Your task to perform on an android device: Go to sound settings Image 0: 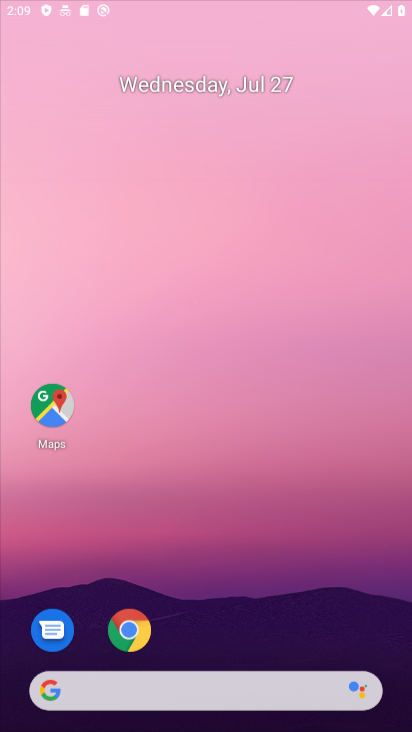
Step 0: drag from (197, 540) to (152, 176)
Your task to perform on an android device: Go to sound settings Image 1: 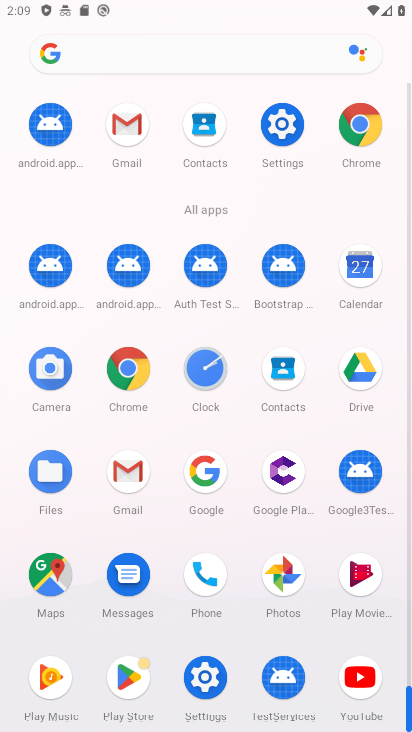
Step 1: click (278, 124)
Your task to perform on an android device: Go to sound settings Image 2: 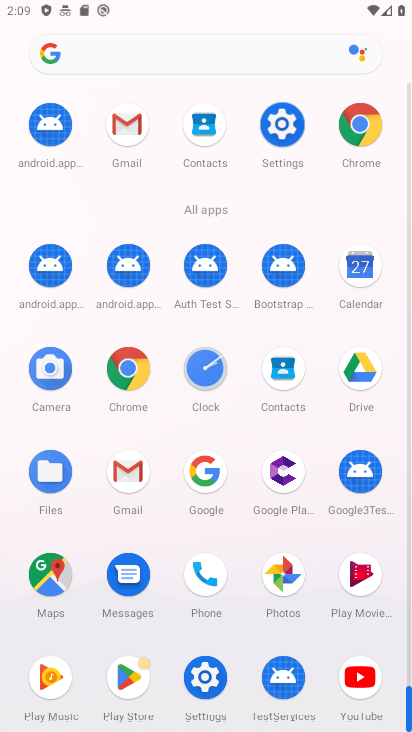
Step 2: click (284, 126)
Your task to perform on an android device: Go to sound settings Image 3: 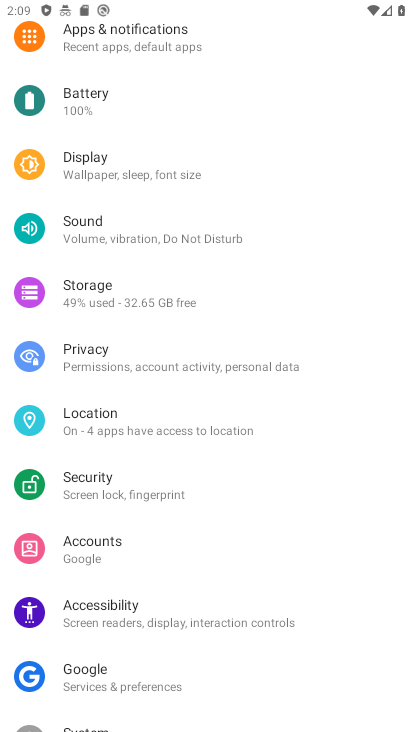
Step 3: click (79, 235)
Your task to perform on an android device: Go to sound settings Image 4: 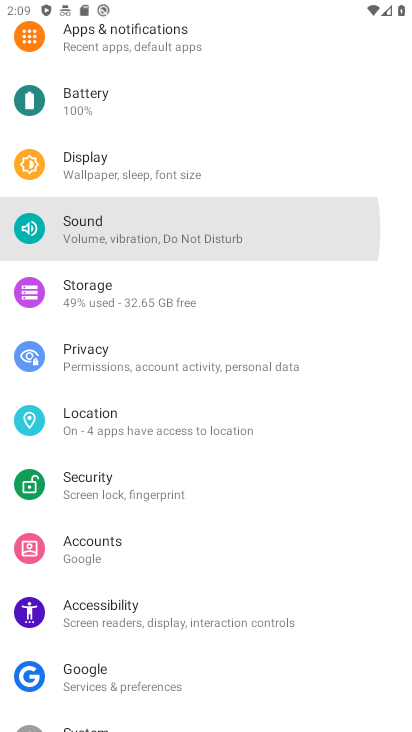
Step 4: click (79, 234)
Your task to perform on an android device: Go to sound settings Image 5: 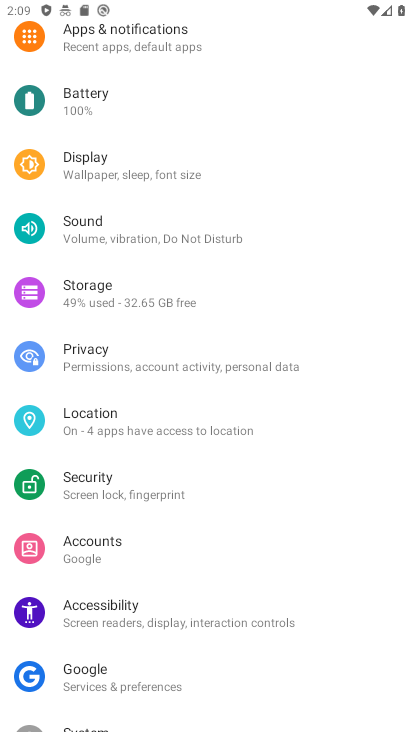
Step 5: click (78, 235)
Your task to perform on an android device: Go to sound settings Image 6: 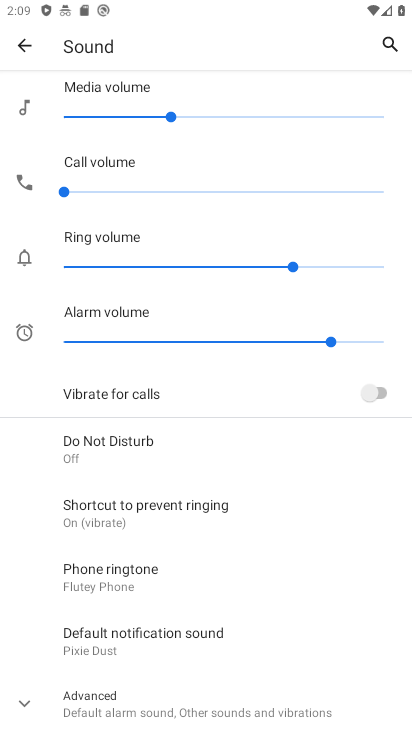
Step 6: task complete